Your task to perform on an android device: search for starred emails in the gmail app Image 0: 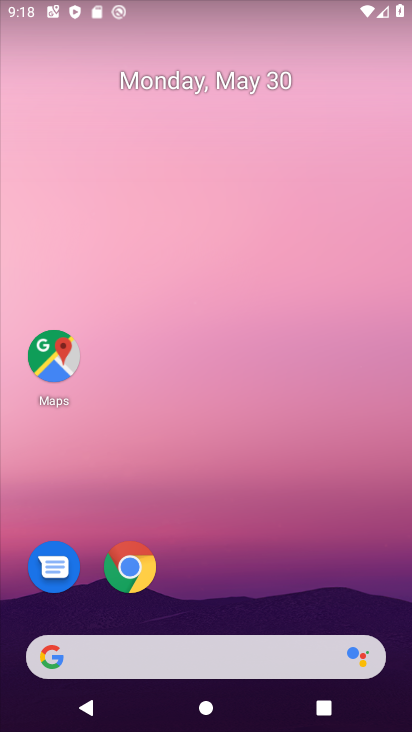
Step 0: drag from (193, 545) to (225, 36)
Your task to perform on an android device: search for starred emails in the gmail app Image 1: 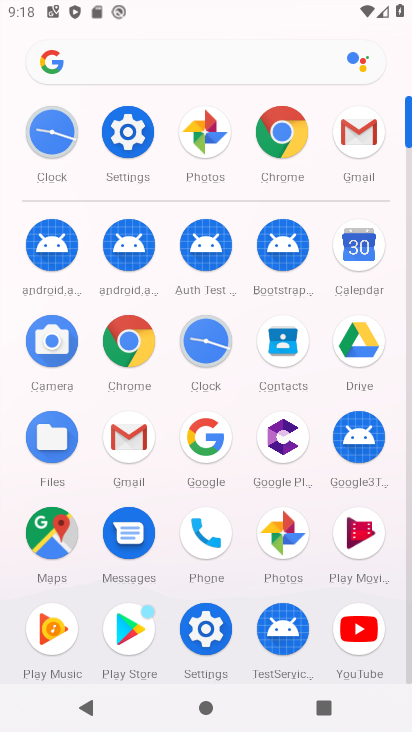
Step 1: drag from (160, 598) to (170, 16)
Your task to perform on an android device: search for starred emails in the gmail app Image 2: 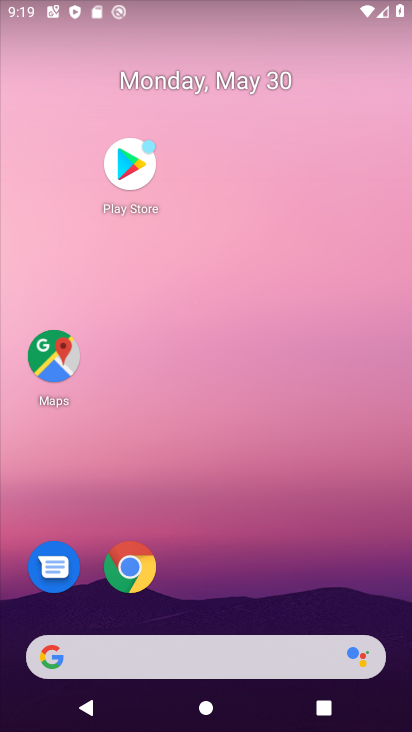
Step 2: drag from (194, 584) to (252, 141)
Your task to perform on an android device: search for starred emails in the gmail app Image 3: 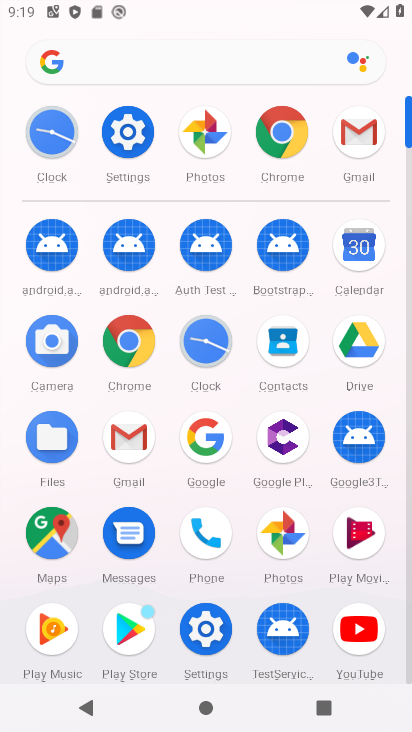
Step 3: click (363, 147)
Your task to perform on an android device: search for starred emails in the gmail app Image 4: 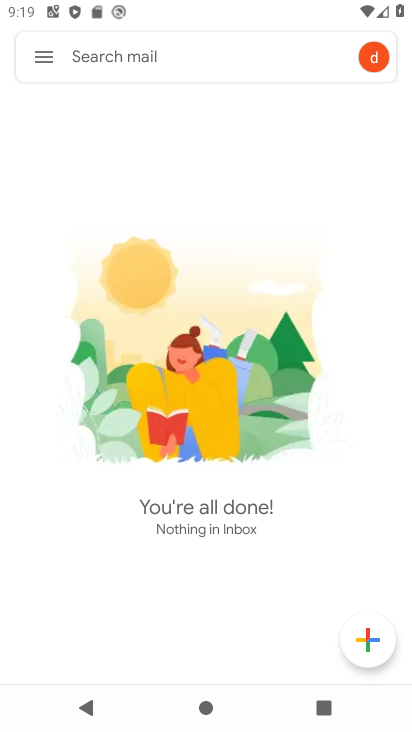
Step 4: click (47, 56)
Your task to perform on an android device: search for starred emails in the gmail app Image 5: 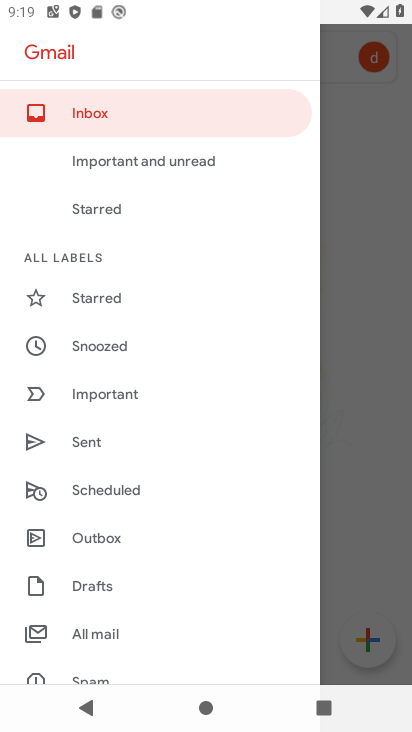
Step 5: click (83, 311)
Your task to perform on an android device: search for starred emails in the gmail app Image 6: 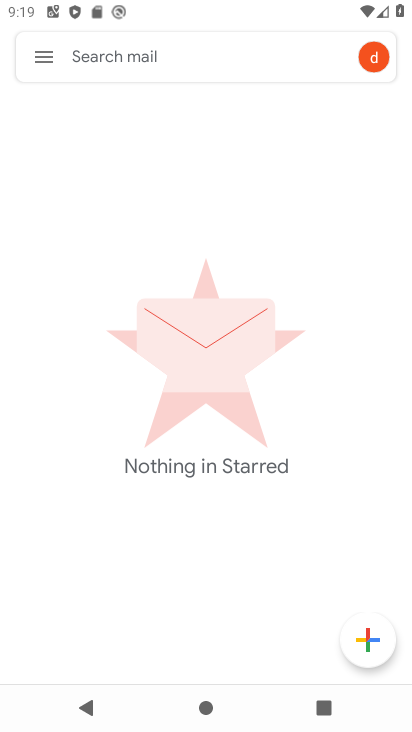
Step 6: task complete